Your task to perform on an android device: Go to accessibility settings Image 0: 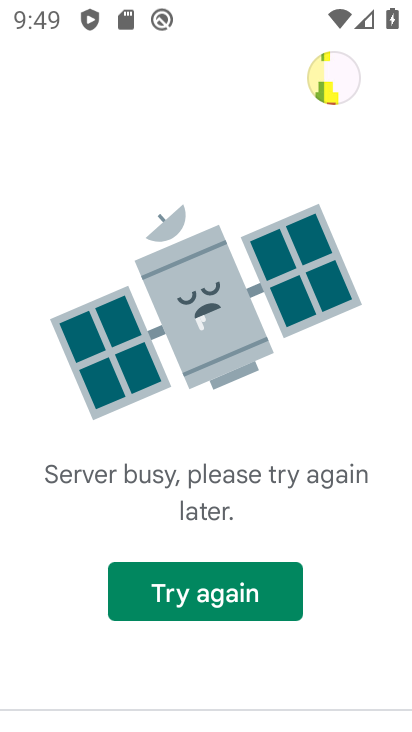
Step 0: press home button
Your task to perform on an android device: Go to accessibility settings Image 1: 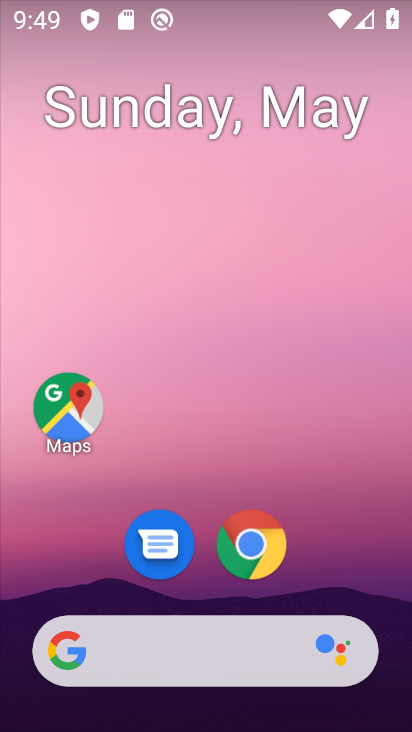
Step 1: drag from (326, 585) to (322, 200)
Your task to perform on an android device: Go to accessibility settings Image 2: 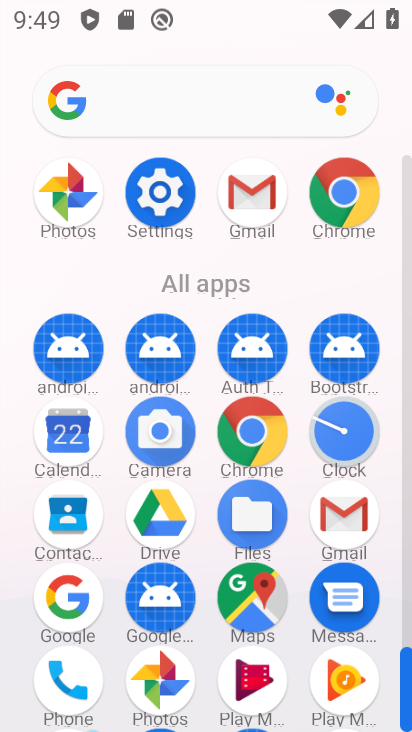
Step 2: click (168, 194)
Your task to perform on an android device: Go to accessibility settings Image 3: 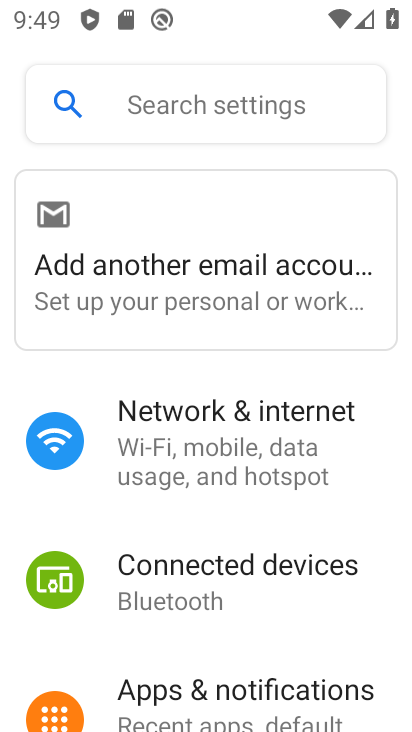
Step 3: drag from (231, 692) to (223, 236)
Your task to perform on an android device: Go to accessibility settings Image 4: 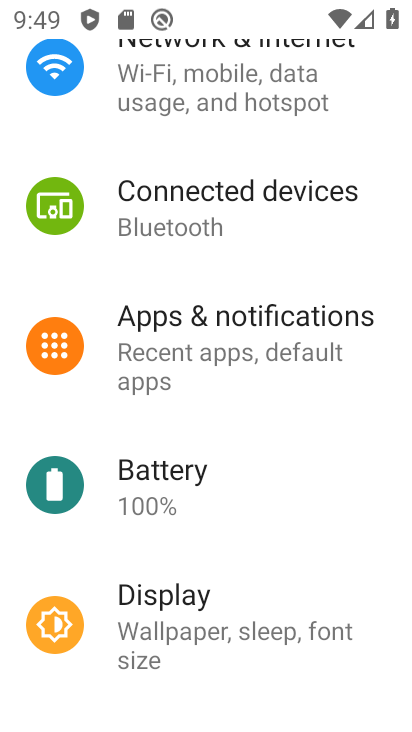
Step 4: drag from (204, 629) to (266, 146)
Your task to perform on an android device: Go to accessibility settings Image 5: 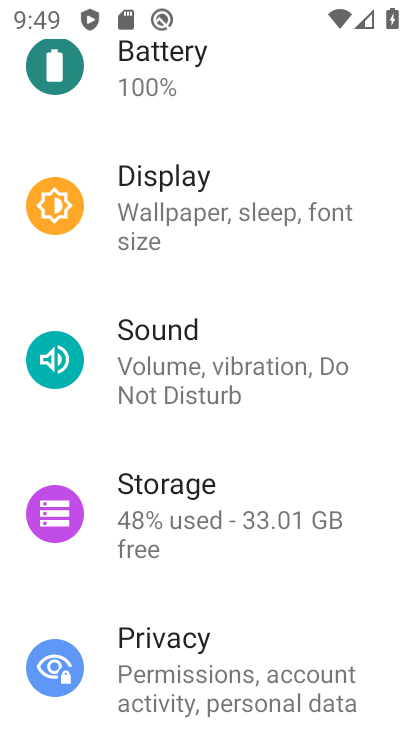
Step 5: drag from (239, 659) to (282, 230)
Your task to perform on an android device: Go to accessibility settings Image 6: 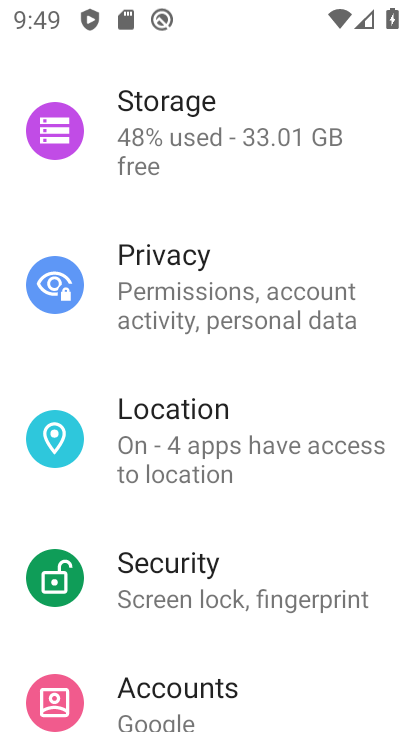
Step 6: drag from (273, 636) to (282, 116)
Your task to perform on an android device: Go to accessibility settings Image 7: 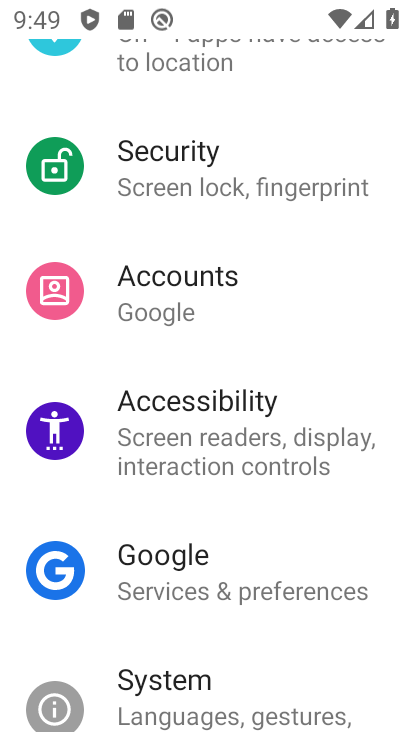
Step 7: click (237, 440)
Your task to perform on an android device: Go to accessibility settings Image 8: 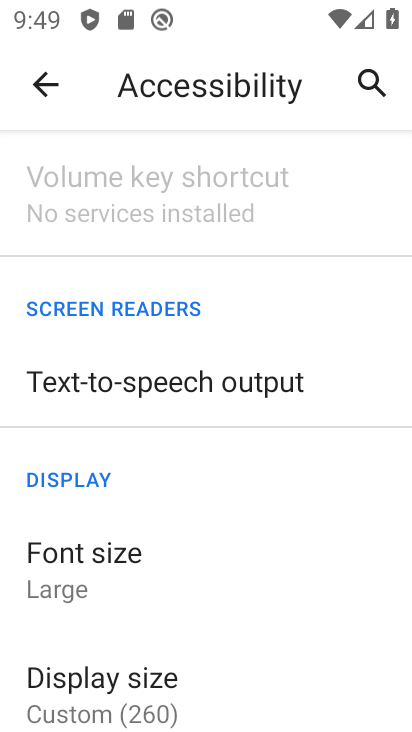
Step 8: task complete